Your task to perform on an android device: check data usage Image 0: 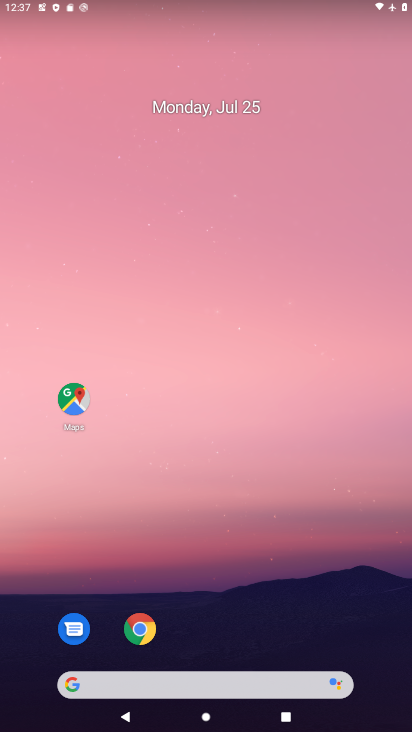
Step 0: drag from (218, 607) to (209, 121)
Your task to perform on an android device: check data usage Image 1: 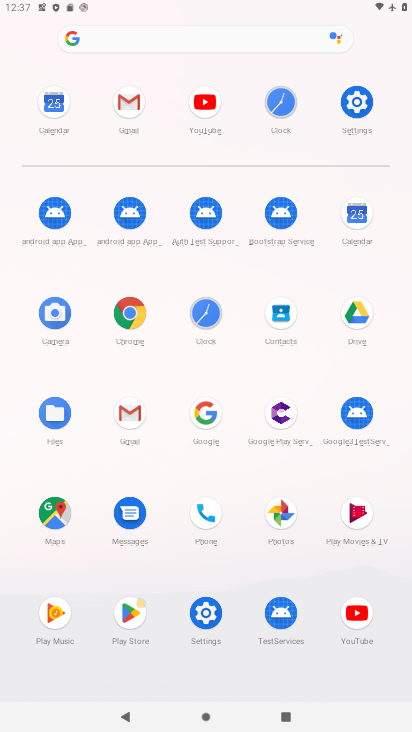
Step 1: click (369, 115)
Your task to perform on an android device: check data usage Image 2: 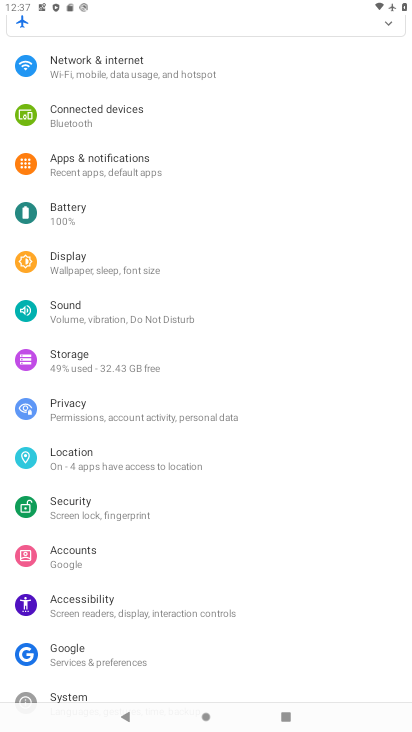
Step 2: click (202, 53)
Your task to perform on an android device: check data usage Image 3: 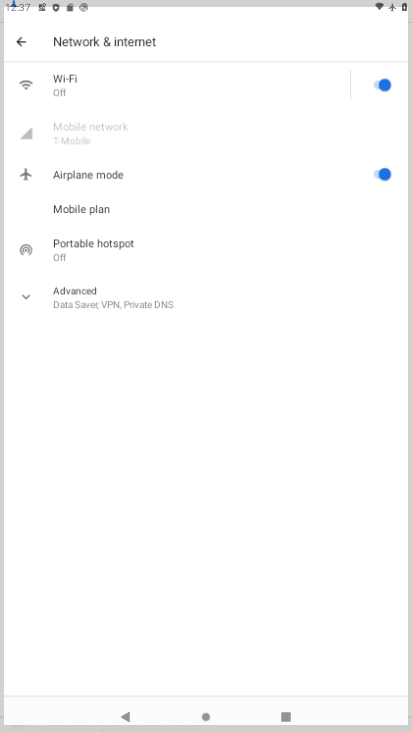
Step 3: task complete